Your task to perform on an android device: install app "Instagram" Image 0: 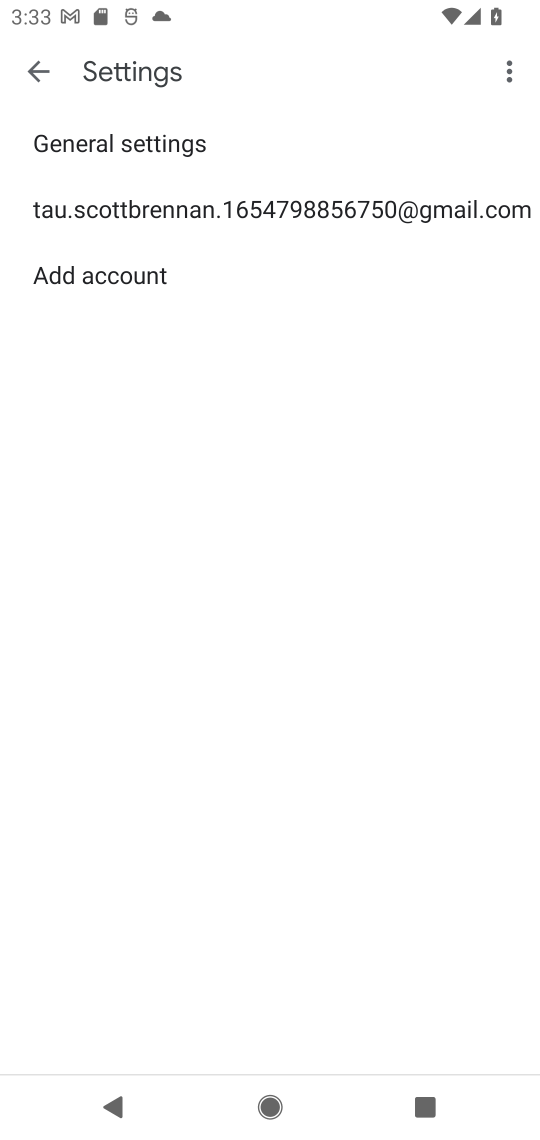
Step 0: press home button
Your task to perform on an android device: install app "Instagram" Image 1: 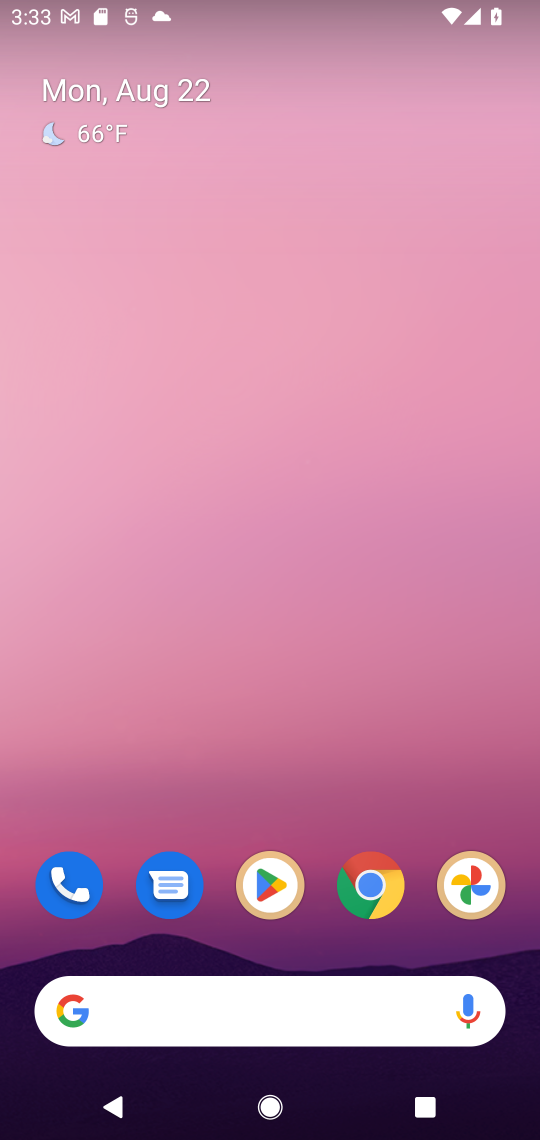
Step 1: click (267, 877)
Your task to perform on an android device: install app "Instagram" Image 2: 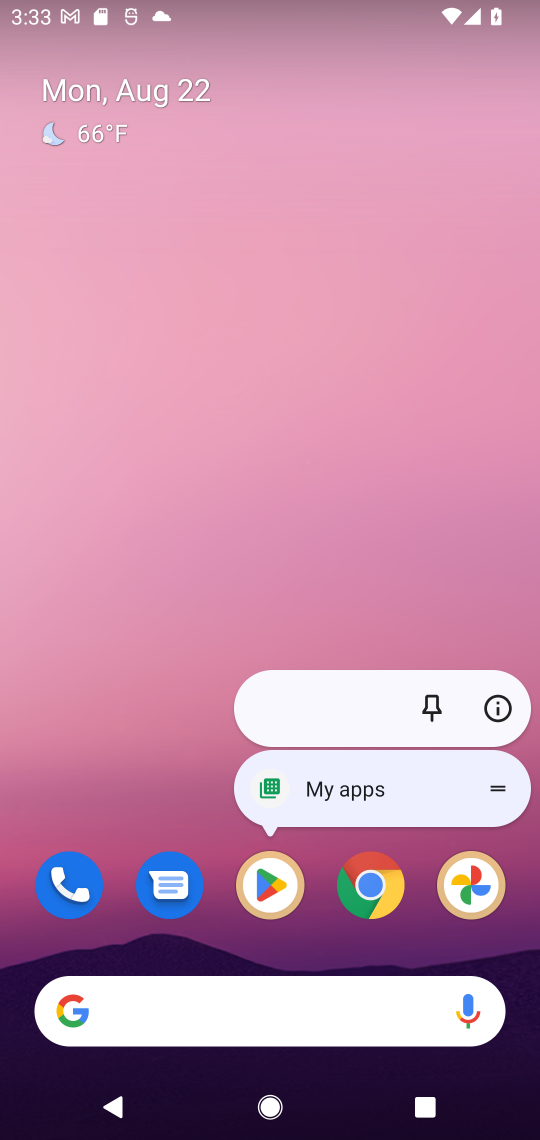
Step 2: click (265, 881)
Your task to perform on an android device: install app "Instagram" Image 3: 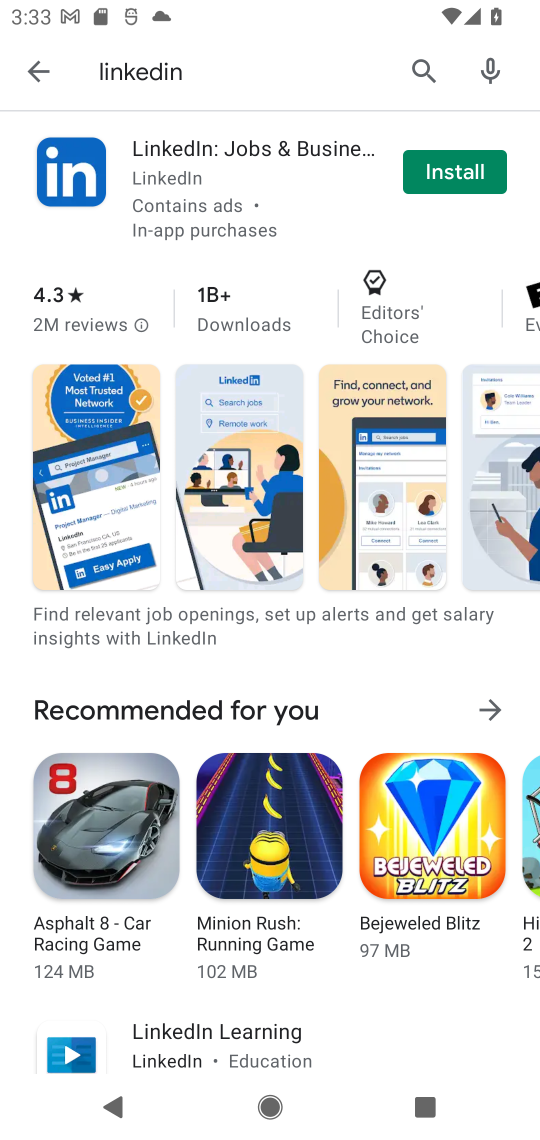
Step 3: click (413, 64)
Your task to perform on an android device: install app "Instagram" Image 4: 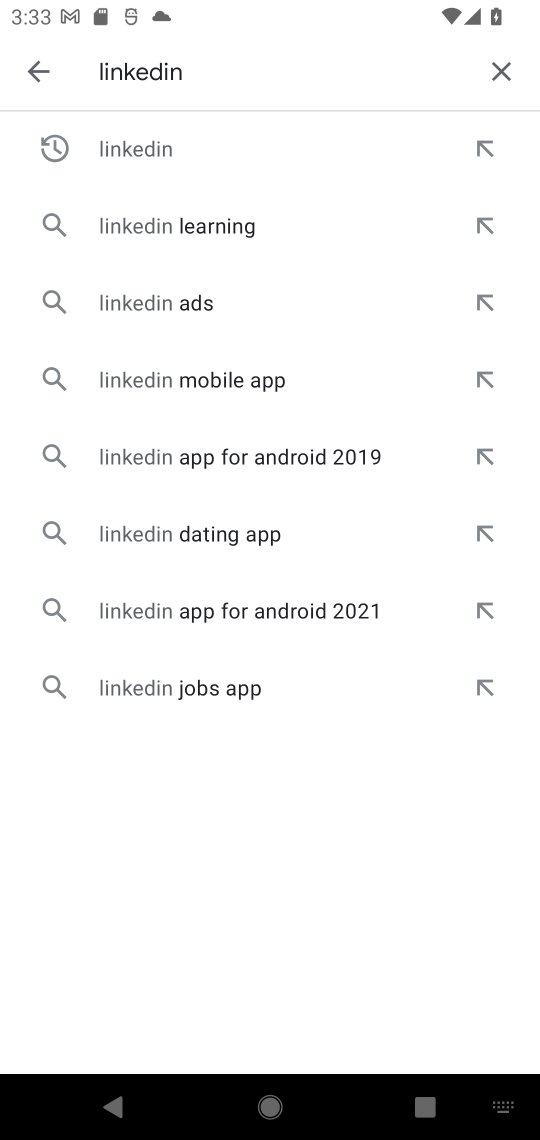
Step 4: click (495, 63)
Your task to perform on an android device: install app "Instagram" Image 5: 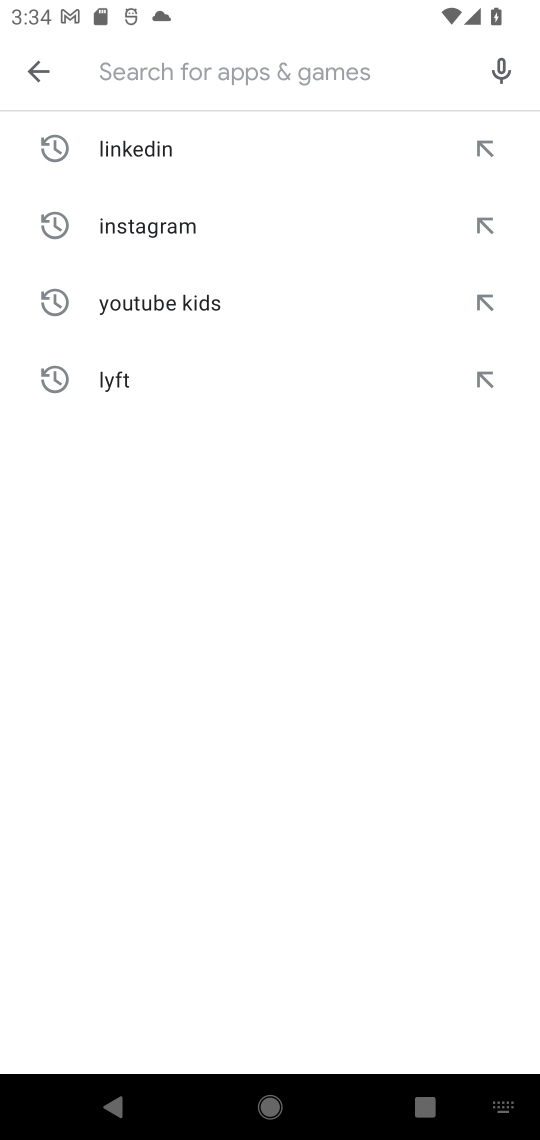
Step 5: type "Instagram"
Your task to perform on an android device: install app "Instagram" Image 6: 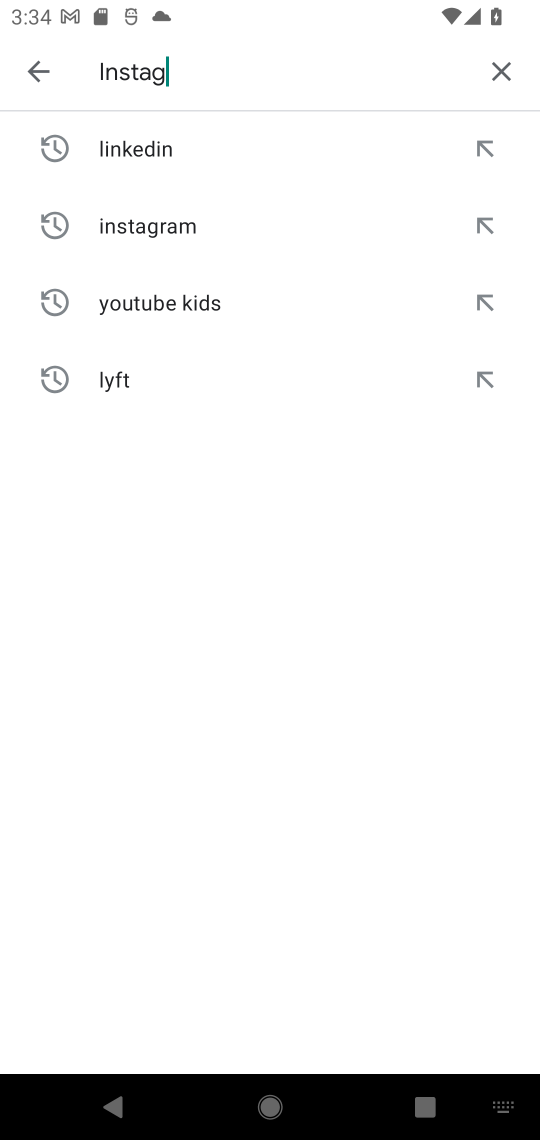
Step 6: type ""
Your task to perform on an android device: install app "Instagram" Image 7: 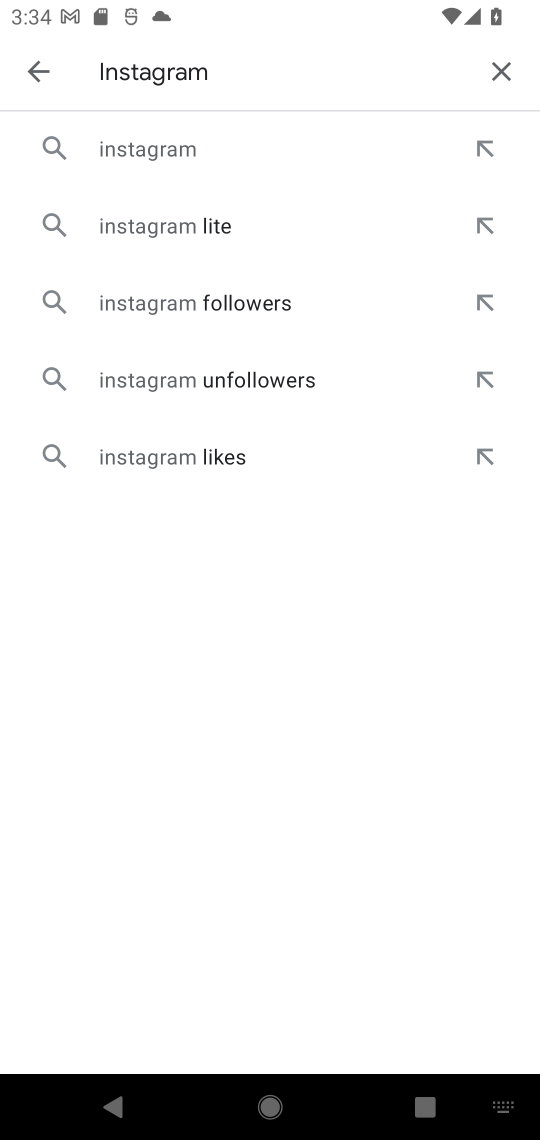
Step 7: click (209, 143)
Your task to perform on an android device: install app "Instagram" Image 8: 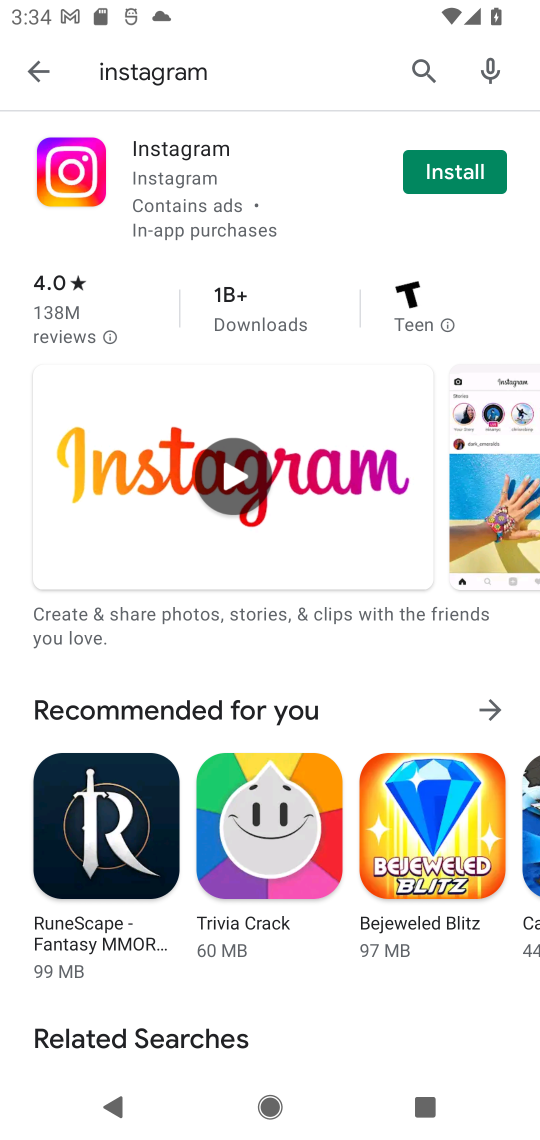
Step 8: click (464, 174)
Your task to perform on an android device: install app "Instagram" Image 9: 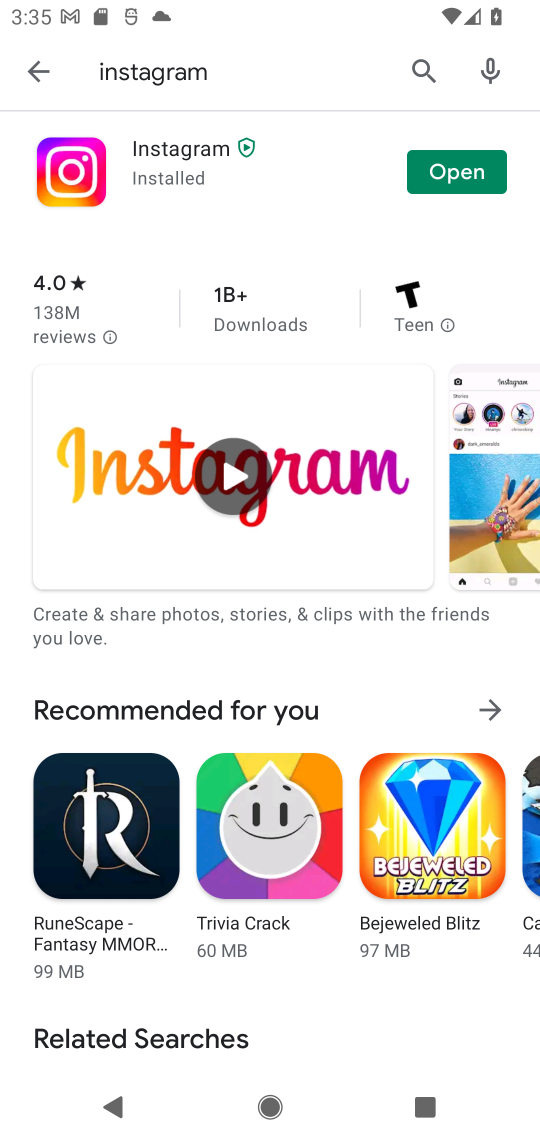
Step 9: click (465, 179)
Your task to perform on an android device: install app "Instagram" Image 10: 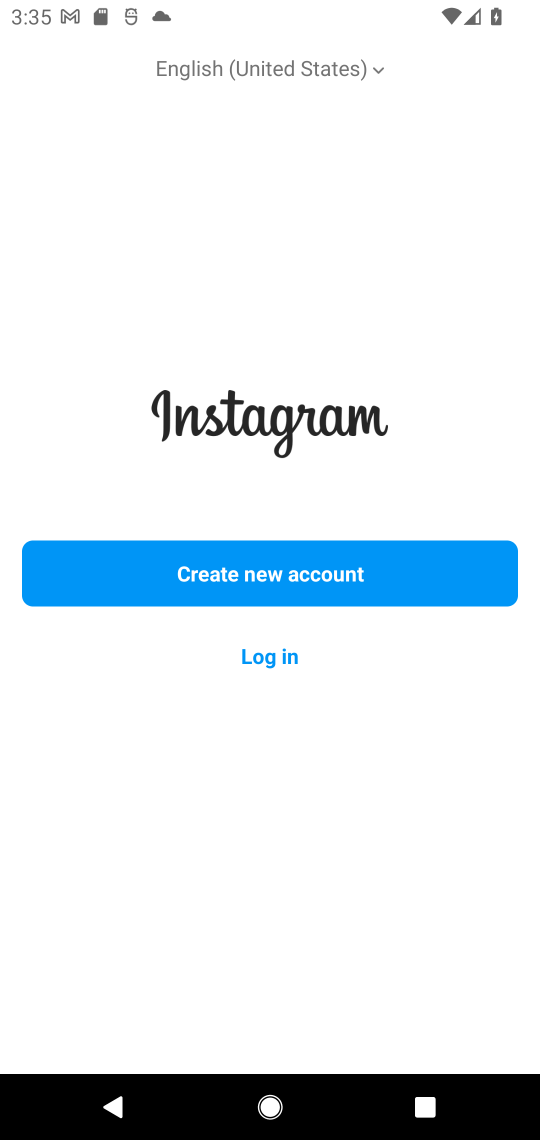
Step 10: click (265, 652)
Your task to perform on an android device: install app "Instagram" Image 11: 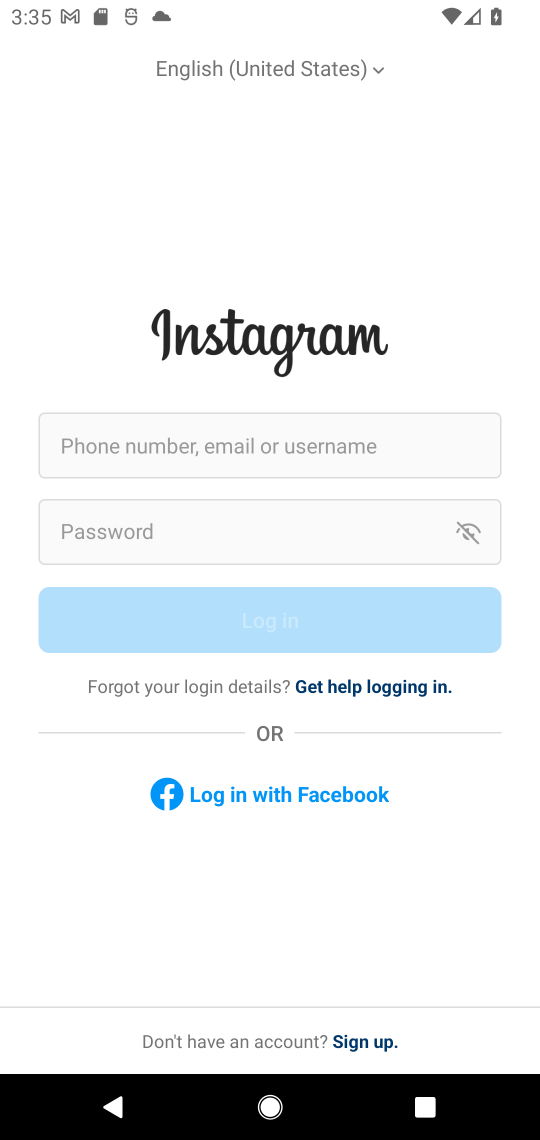
Step 11: task complete